Your task to perform on an android device: turn on translation in the chrome app Image 0: 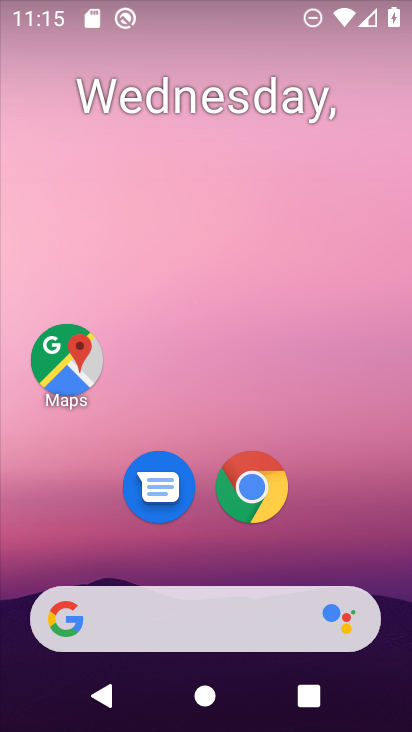
Step 0: click (259, 486)
Your task to perform on an android device: turn on translation in the chrome app Image 1: 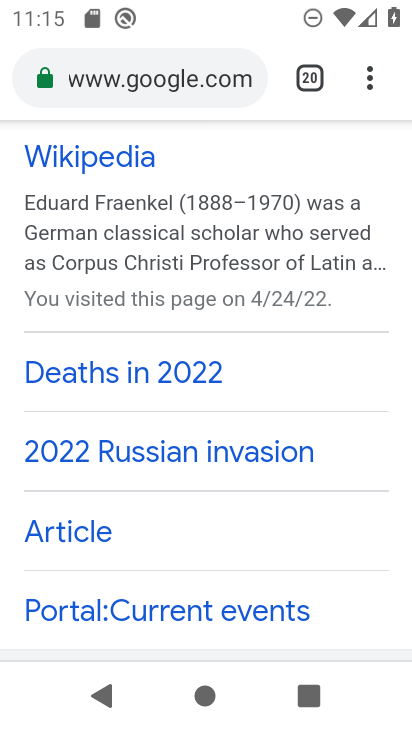
Step 1: click (368, 69)
Your task to perform on an android device: turn on translation in the chrome app Image 2: 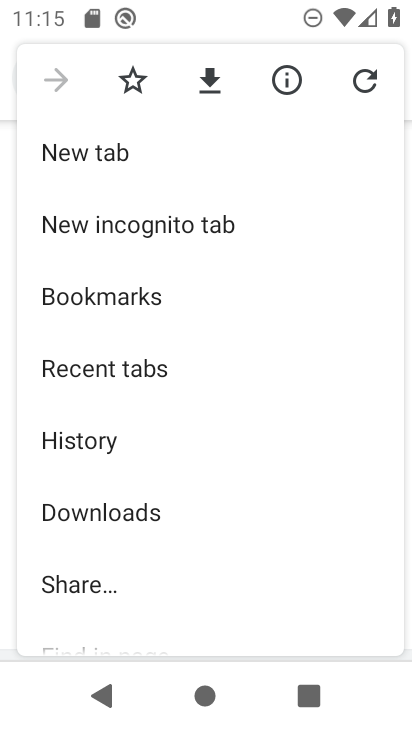
Step 2: drag from (291, 430) to (279, 141)
Your task to perform on an android device: turn on translation in the chrome app Image 3: 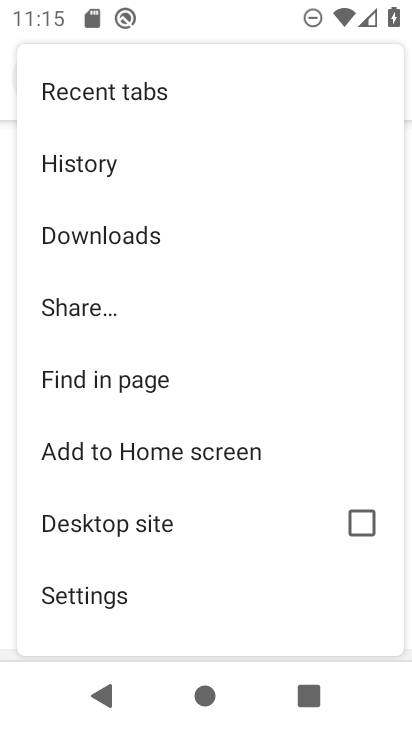
Step 3: click (90, 588)
Your task to perform on an android device: turn on translation in the chrome app Image 4: 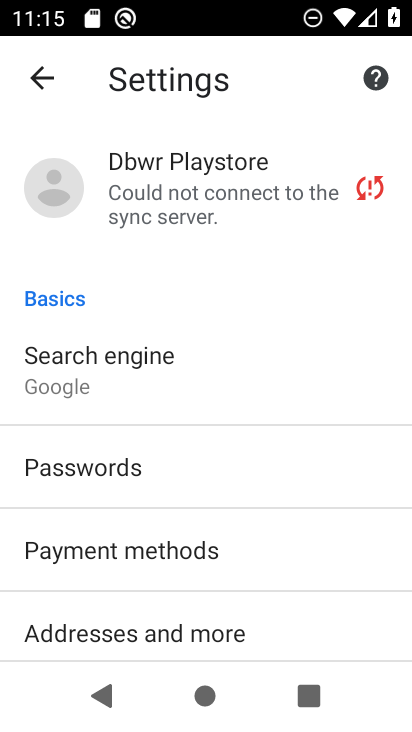
Step 4: drag from (286, 491) to (261, 137)
Your task to perform on an android device: turn on translation in the chrome app Image 5: 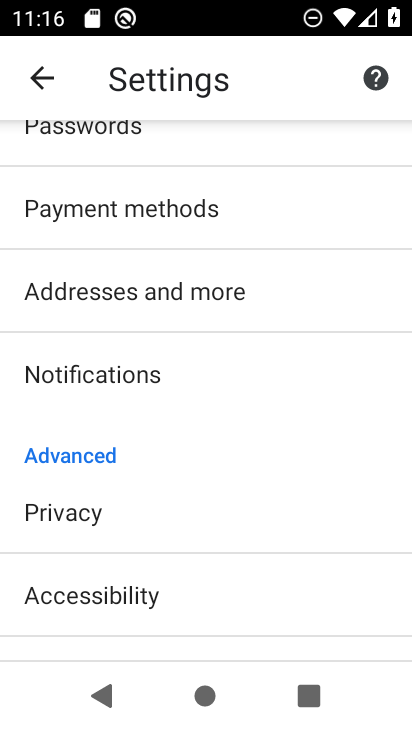
Step 5: drag from (270, 454) to (260, 149)
Your task to perform on an android device: turn on translation in the chrome app Image 6: 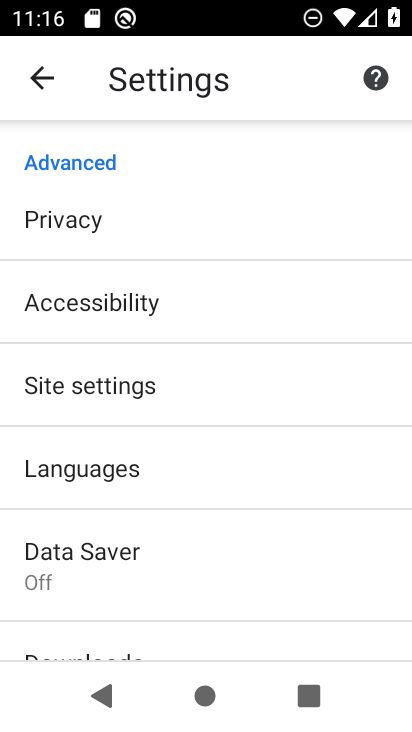
Step 6: click (99, 463)
Your task to perform on an android device: turn on translation in the chrome app Image 7: 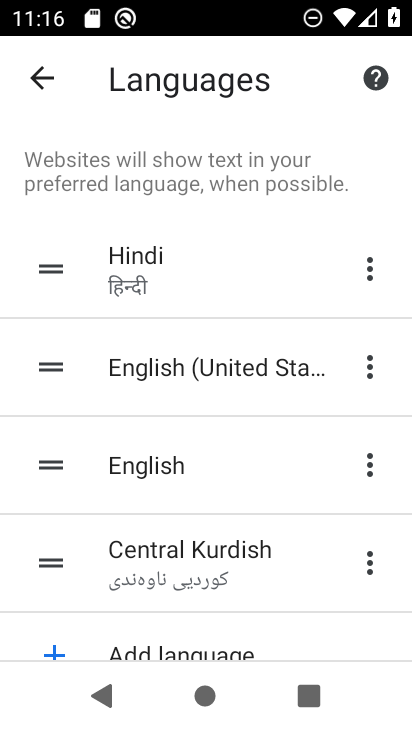
Step 7: drag from (314, 529) to (312, 145)
Your task to perform on an android device: turn on translation in the chrome app Image 8: 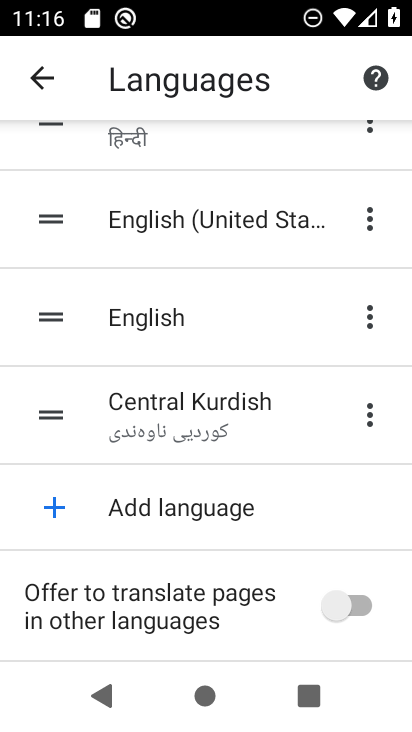
Step 8: drag from (289, 528) to (258, 199)
Your task to perform on an android device: turn on translation in the chrome app Image 9: 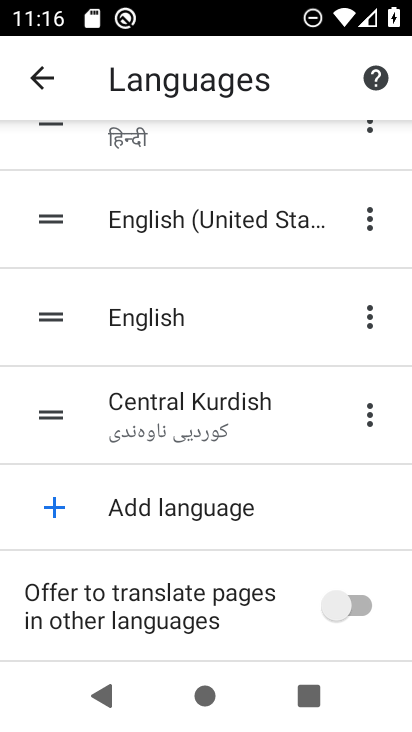
Step 9: click (325, 593)
Your task to perform on an android device: turn on translation in the chrome app Image 10: 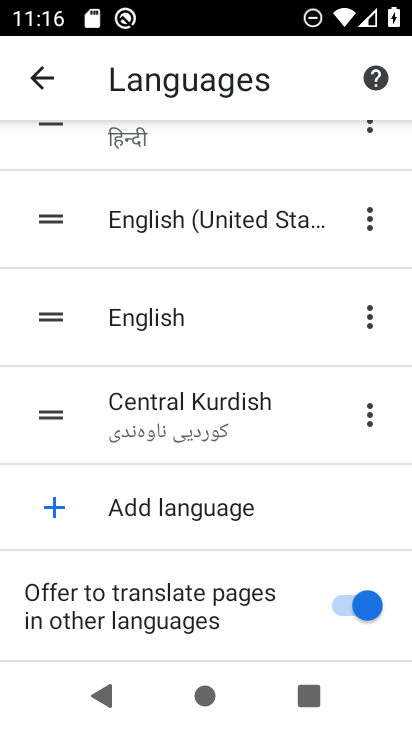
Step 10: task complete